Your task to perform on an android device: Go to settings Image 0: 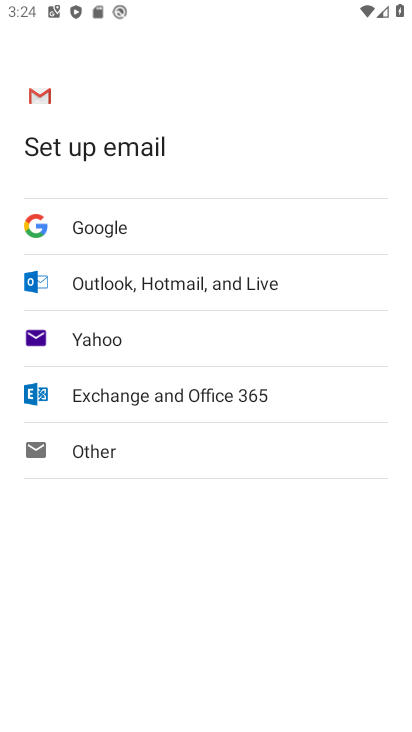
Step 0: press home button
Your task to perform on an android device: Go to settings Image 1: 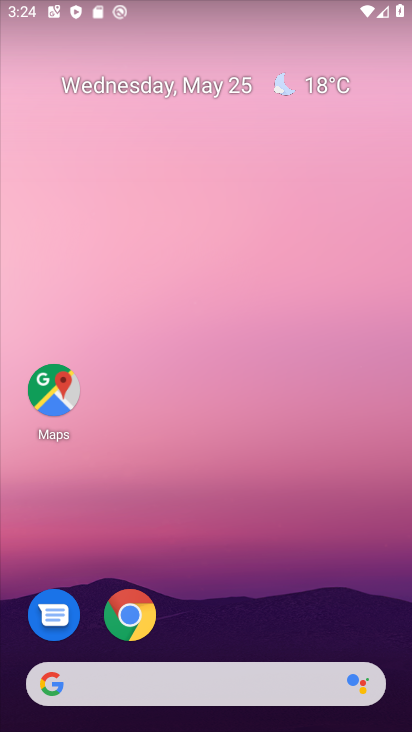
Step 1: drag from (323, 623) to (232, 42)
Your task to perform on an android device: Go to settings Image 2: 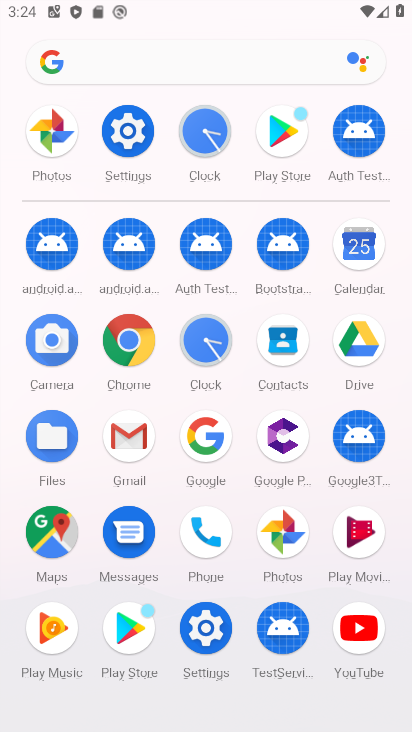
Step 2: click (139, 146)
Your task to perform on an android device: Go to settings Image 3: 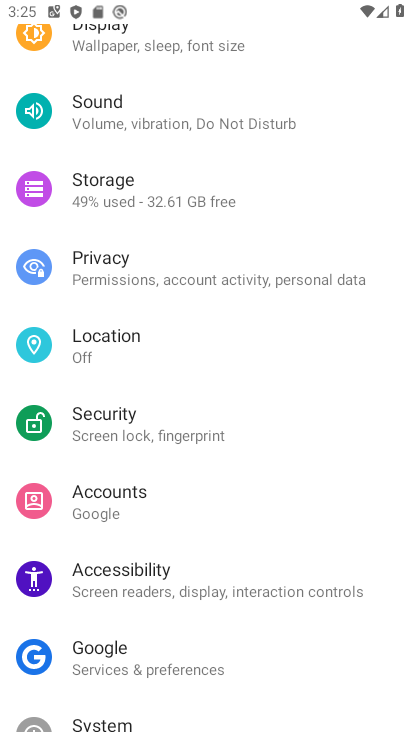
Step 3: task complete